Your task to perform on an android device: turn on translation in the chrome app Image 0: 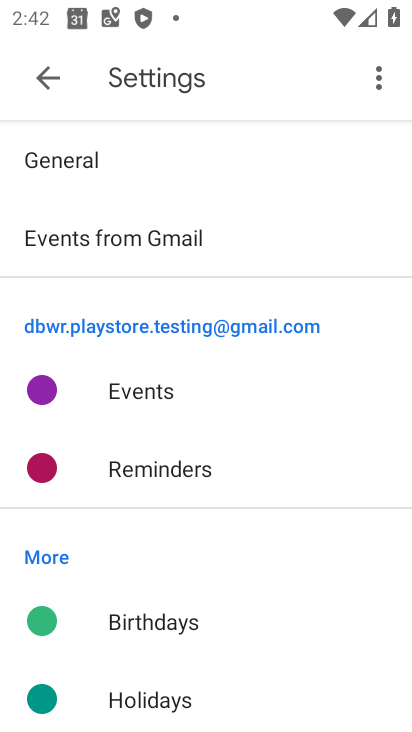
Step 0: press home button
Your task to perform on an android device: turn on translation in the chrome app Image 1: 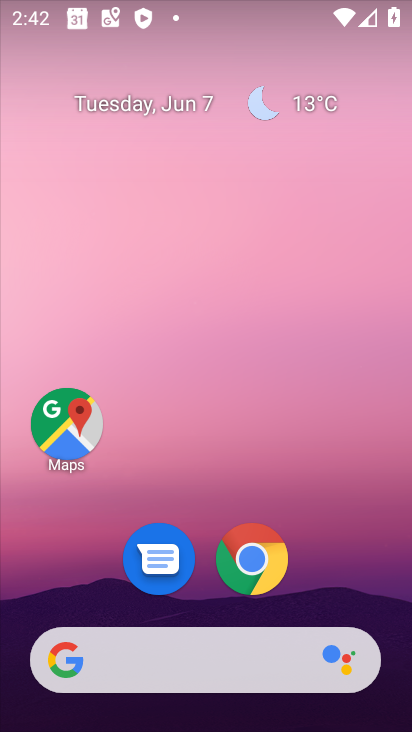
Step 1: click (256, 560)
Your task to perform on an android device: turn on translation in the chrome app Image 2: 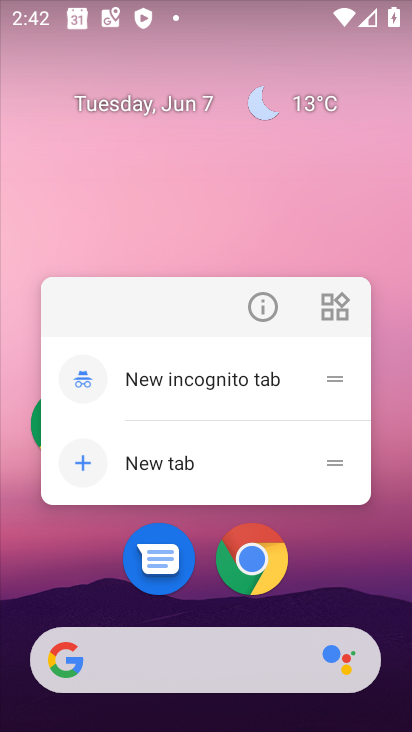
Step 2: click (256, 560)
Your task to perform on an android device: turn on translation in the chrome app Image 3: 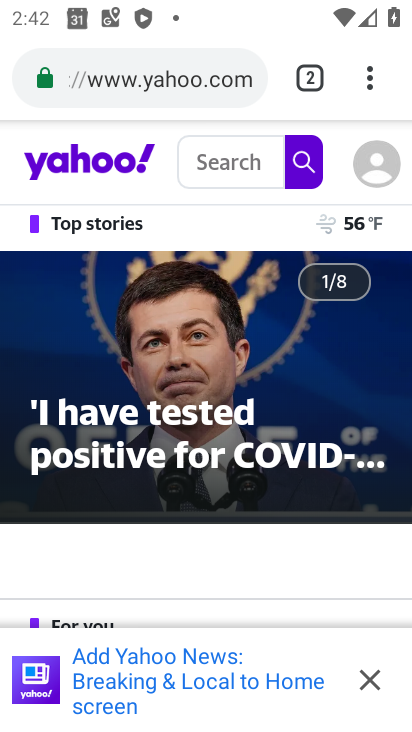
Step 3: click (369, 78)
Your task to perform on an android device: turn on translation in the chrome app Image 4: 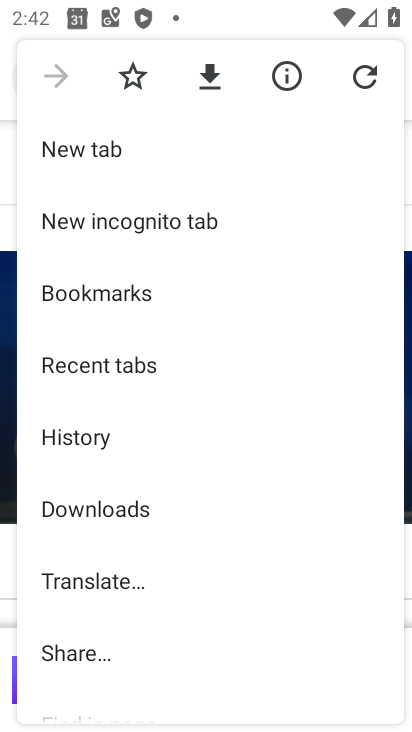
Step 4: drag from (161, 403) to (236, 296)
Your task to perform on an android device: turn on translation in the chrome app Image 5: 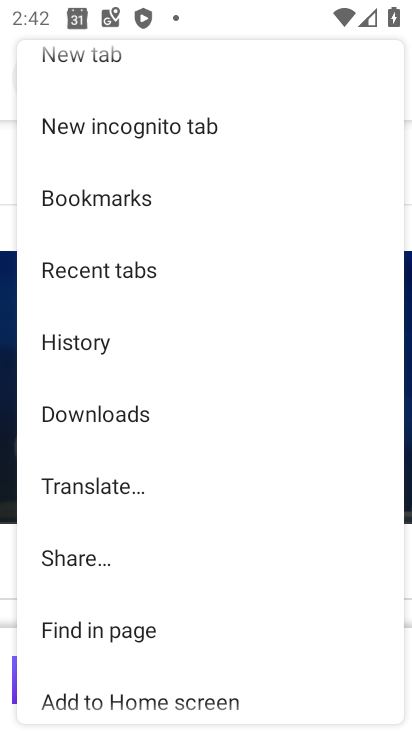
Step 5: drag from (174, 445) to (308, 251)
Your task to perform on an android device: turn on translation in the chrome app Image 6: 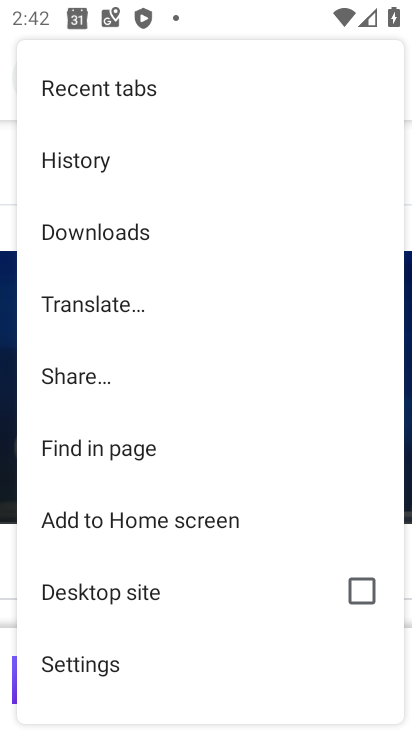
Step 6: drag from (228, 421) to (337, 238)
Your task to perform on an android device: turn on translation in the chrome app Image 7: 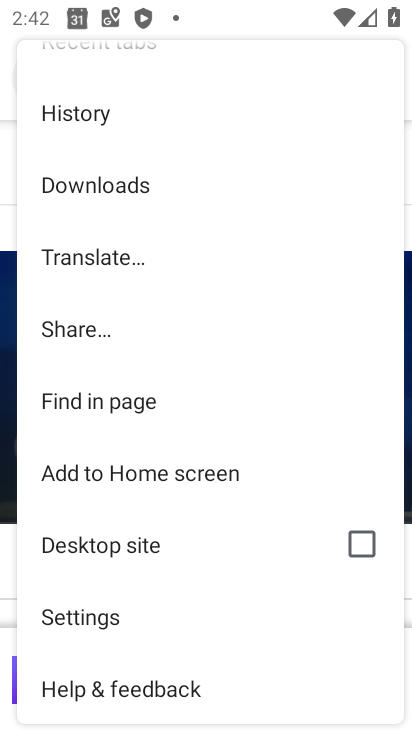
Step 7: click (115, 616)
Your task to perform on an android device: turn on translation in the chrome app Image 8: 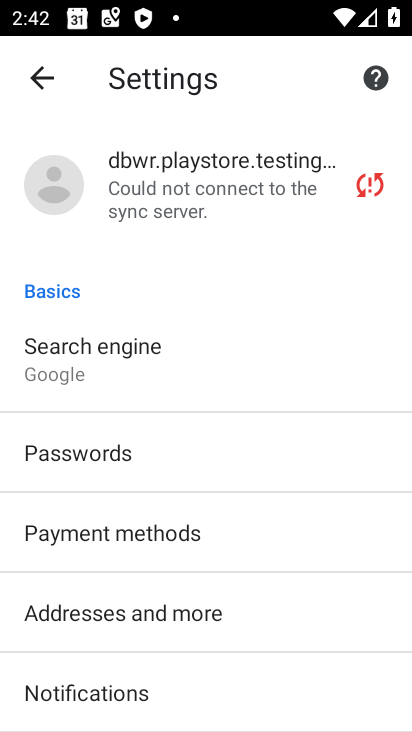
Step 8: drag from (264, 510) to (286, 382)
Your task to perform on an android device: turn on translation in the chrome app Image 9: 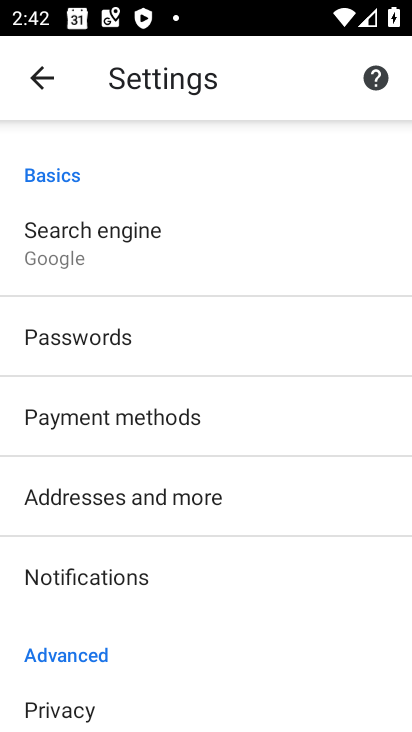
Step 9: drag from (192, 559) to (224, 315)
Your task to perform on an android device: turn on translation in the chrome app Image 10: 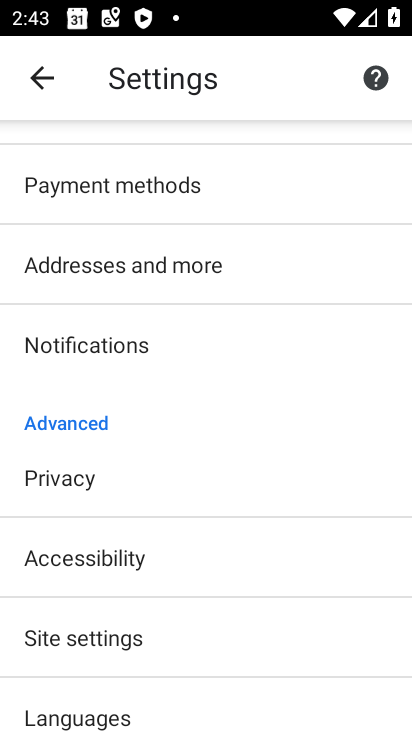
Step 10: drag from (191, 497) to (244, 310)
Your task to perform on an android device: turn on translation in the chrome app Image 11: 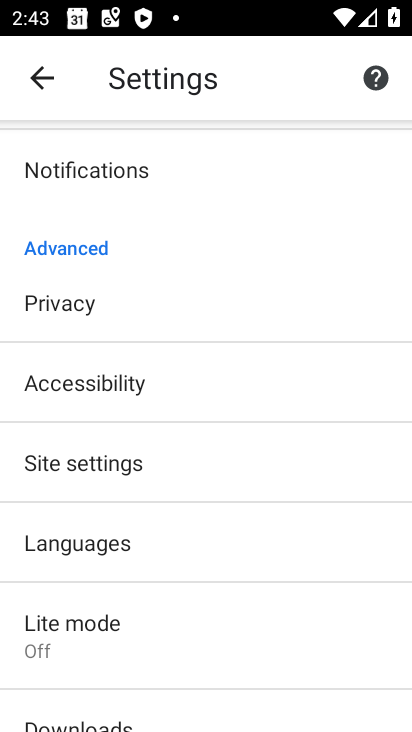
Step 11: click (123, 546)
Your task to perform on an android device: turn on translation in the chrome app Image 12: 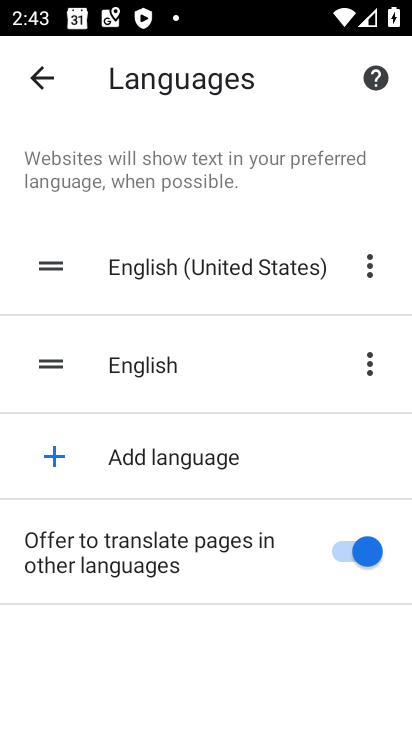
Step 12: task complete